Your task to perform on an android device: Open sound settings Image 0: 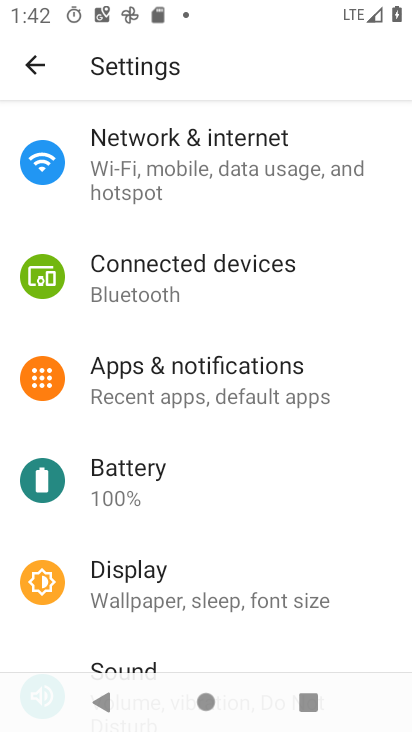
Step 0: drag from (215, 657) to (237, 348)
Your task to perform on an android device: Open sound settings Image 1: 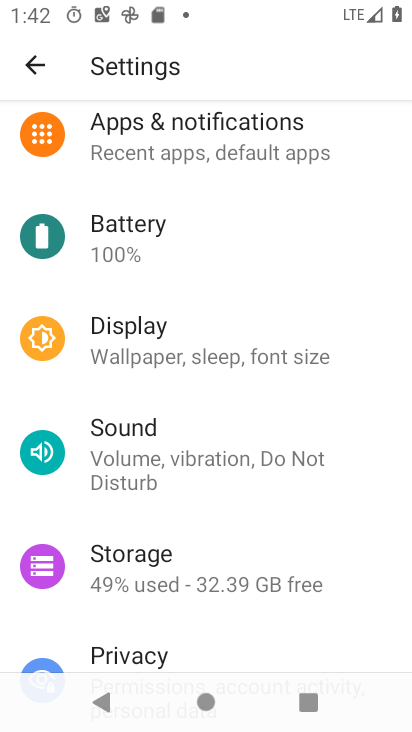
Step 1: click (196, 438)
Your task to perform on an android device: Open sound settings Image 2: 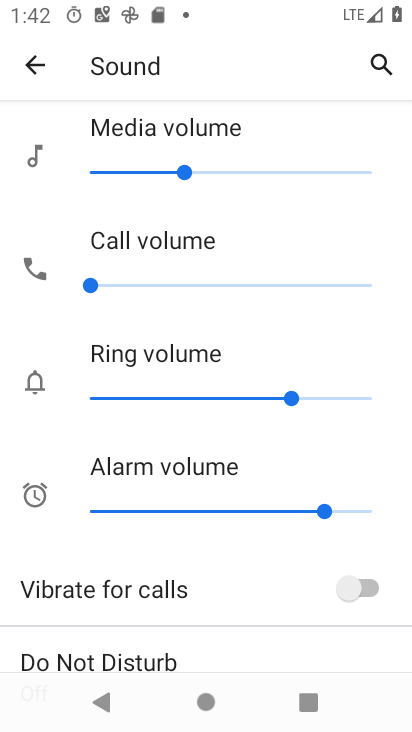
Step 2: task complete